Your task to perform on an android device: Check the news Image 0: 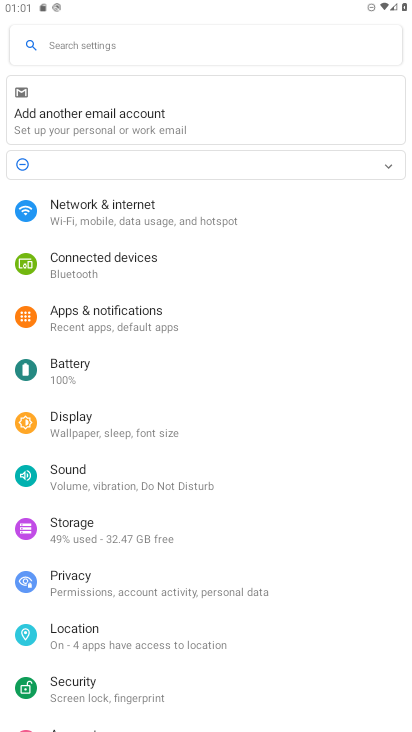
Step 0: press home button
Your task to perform on an android device: Check the news Image 1: 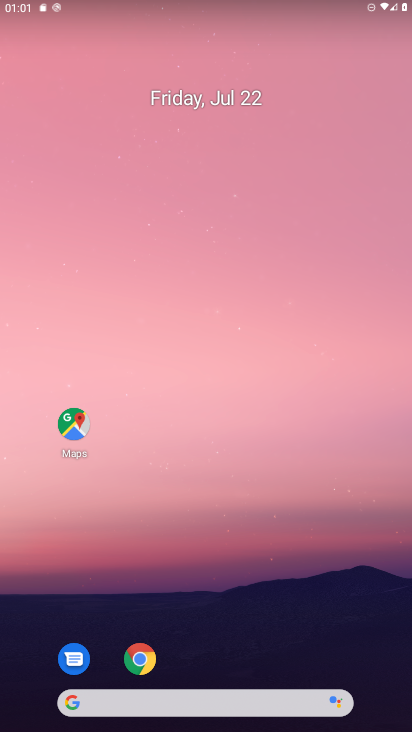
Step 1: drag from (205, 699) to (208, 77)
Your task to perform on an android device: Check the news Image 2: 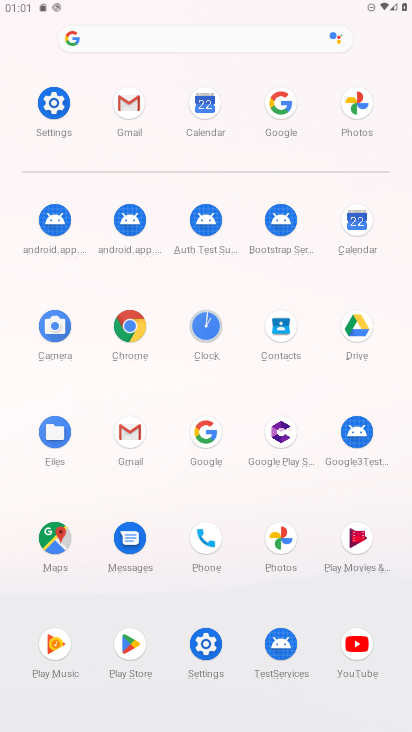
Step 2: click (276, 100)
Your task to perform on an android device: Check the news Image 3: 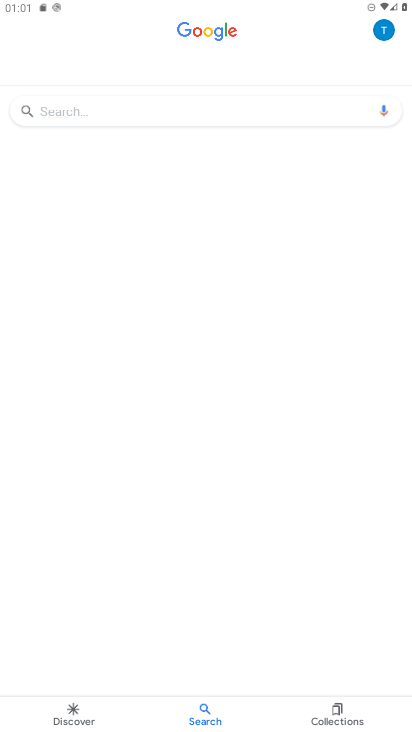
Step 3: click (276, 100)
Your task to perform on an android device: Check the news Image 4: 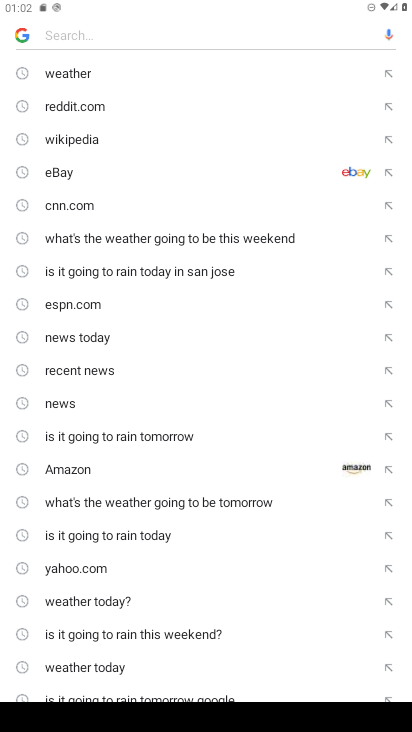
Step 4: type "news"
Your task to perform on an android device: Check the news Image 5: 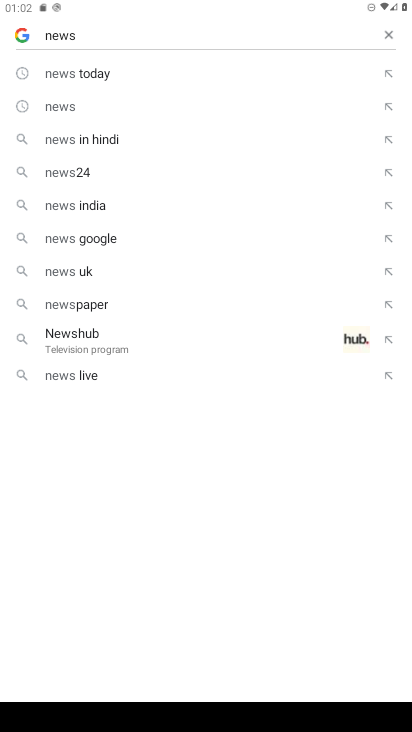
Step 5: click (69, 99)
Your task to perform on an android device: Check the news Image 6: 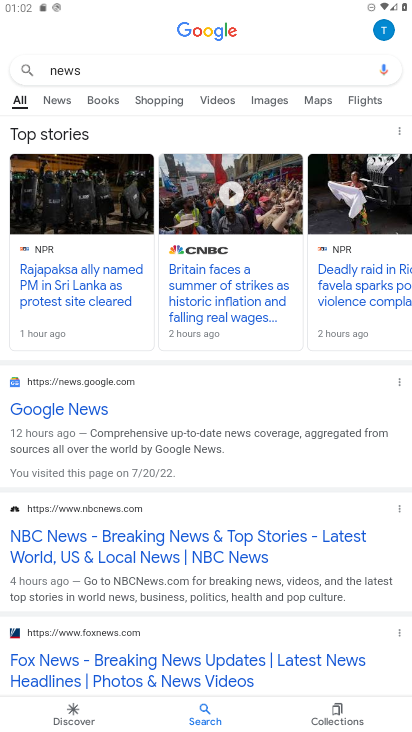
Step 6: click (68, 297)
Your task to perform on an android device: Check the news Image 7: 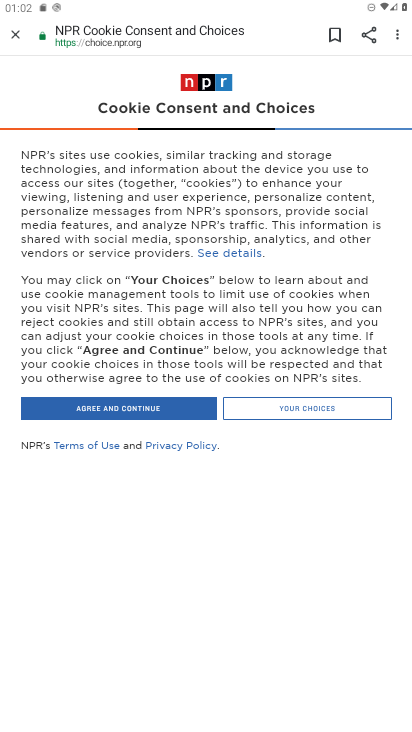
Step 7: click (113, 408)
Your task to perform on an android device: Check the news Image 8: 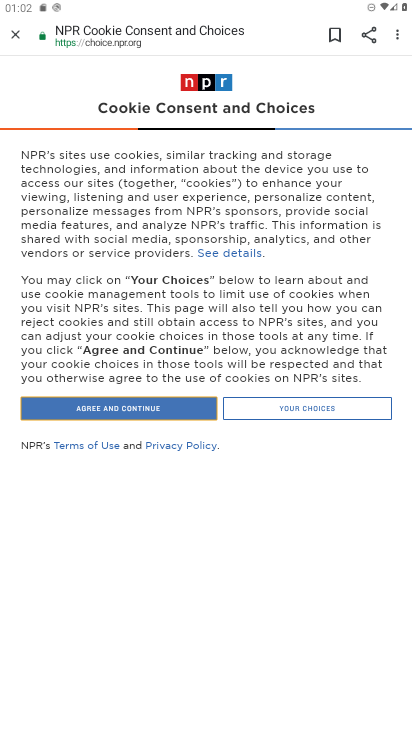
Step 8: click (113, 408)
Your task to perform on an android device: Check the news Image 9: 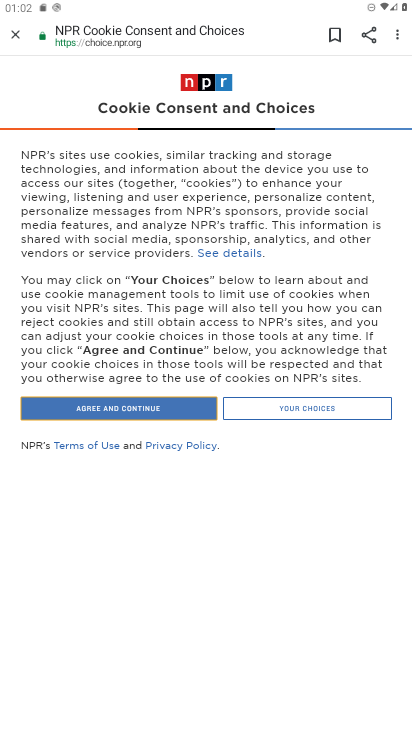
Step 9: click (93, 407)
Your task to perform on an android device: Check the news Image 10: 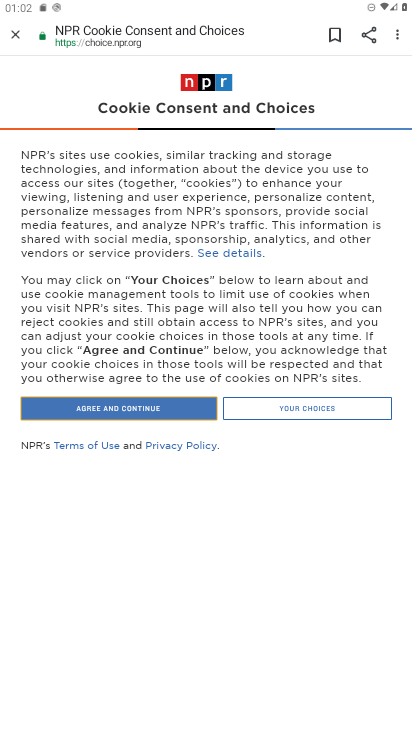
Step 10: task complete